Your task to perform on an android device: Show me the alarms in the clock app Image 0: 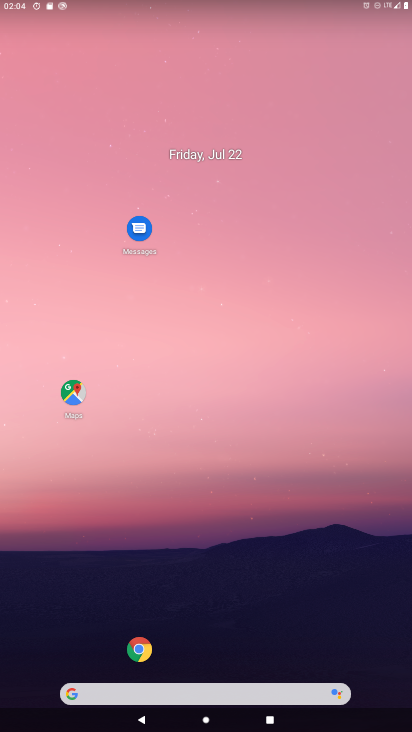
Step 0: drag from (55, 643) to (284, 63)
Your task to perform on an android device: Show me the alarms in the clock app Image 1: 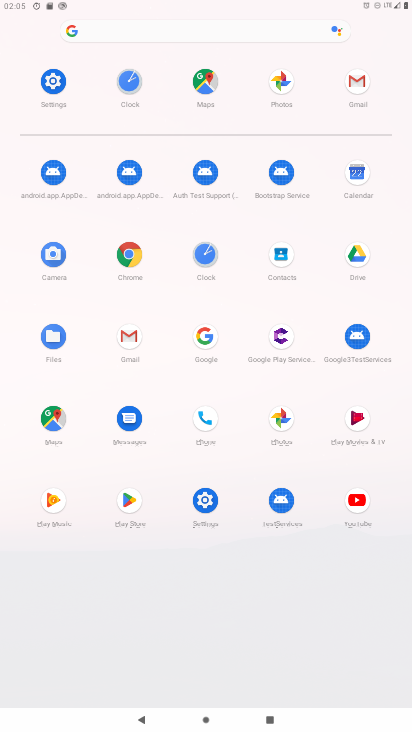
Step 1: click (211, 270)
Your task to perform on an android device: Show me the alarms in the clock app Image 2: 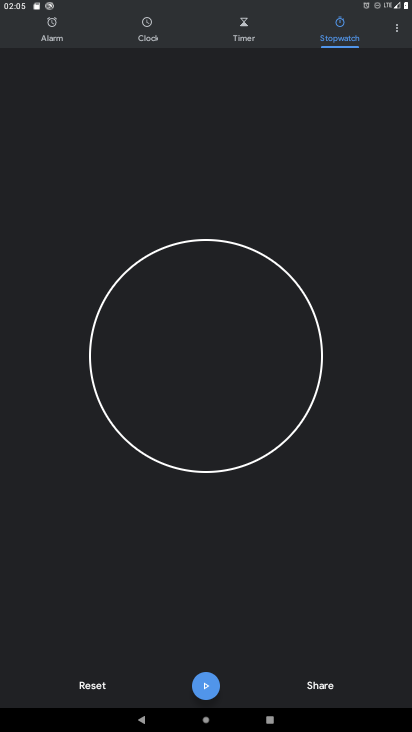
Step 2: click (53, 28)
Your task to perform on an android device: Show me the alarms in the clock app Image 3: 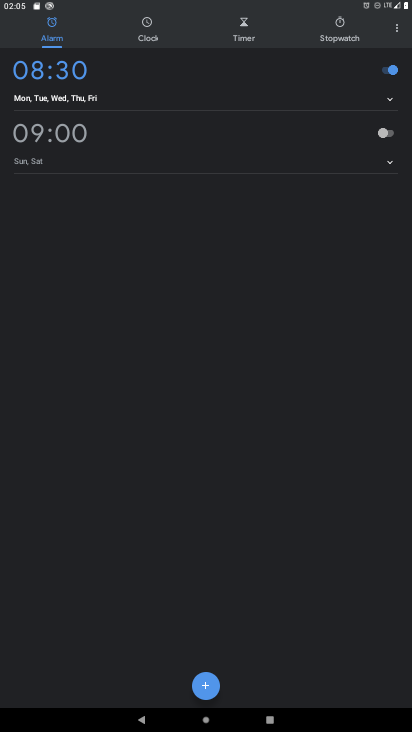
Step 3: task complete